Your task to perform on an android device: Go to calendar. Show me events next week Image 0: 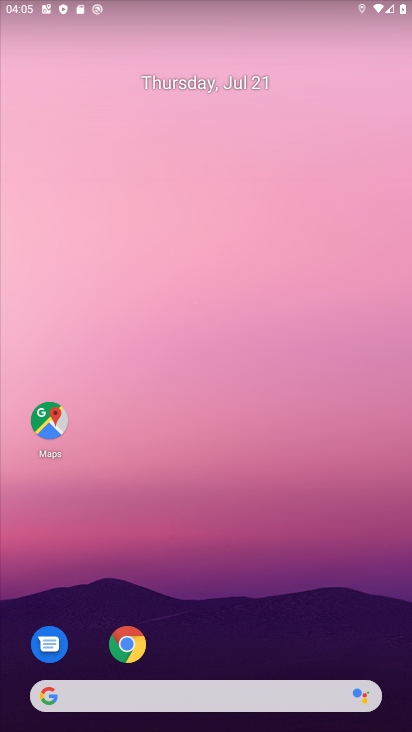
Step 0: drag from (244, 664) to (270, 0)
Your task to perform on an android device: Go to calendar. Show me events next week Image 1: 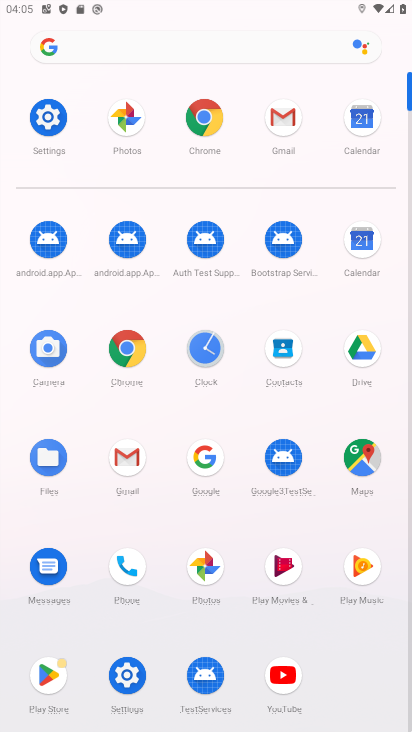
Step 1: click (355, 116)
Your task to perform on an android device: Go to calendar. Show me events next week Image 2: 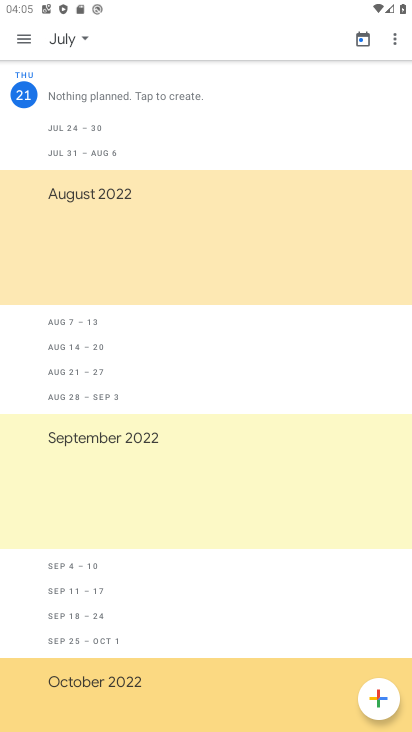
Step 2: click (20, 37)
Your task to perform on an android device: Go to calendar. Show me events next week Image 3: 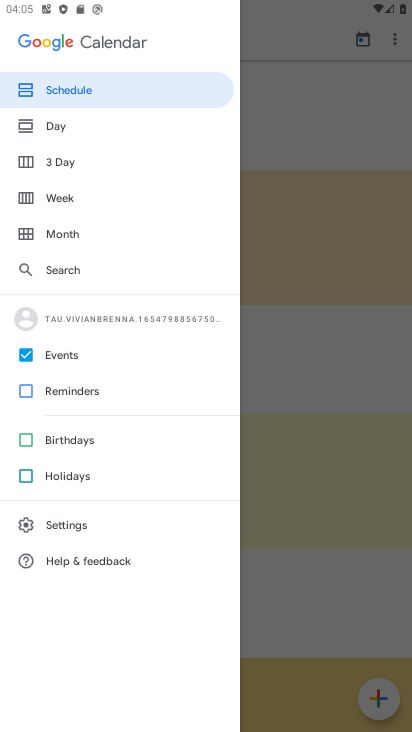
Step 3: click (61, 204)
Your task to perform on an android device: Go to calendar. Show me events next week Image 4: 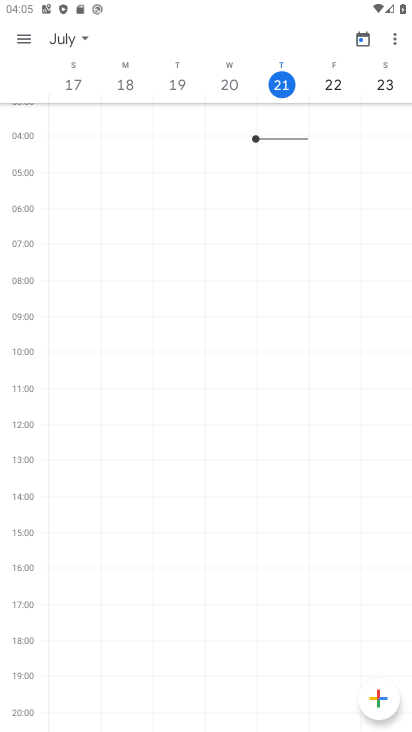
Step 4: task complete